Your task to perform on an android device: Open the calendar app, open the side menu, and click the "Day" option Image 0: 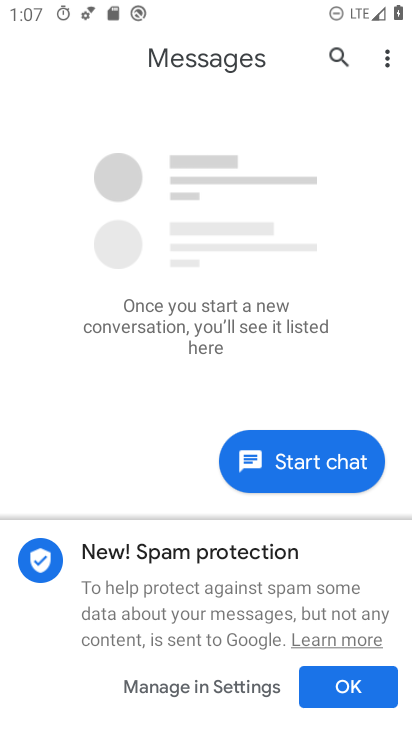
Step 0: press home button
Your task to perform on an android device: Open the calendar app, open the side menu, and click the "Day" option Image 1: 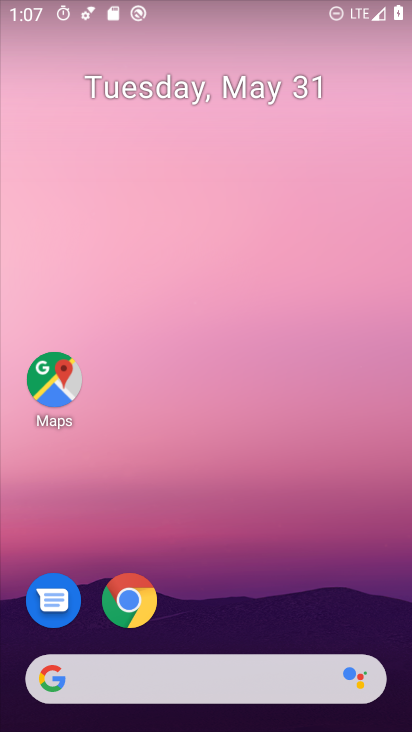
Step 1: drag from (205, 721) to (198, 662)
Your task to perform on an android device: Open the calendar app, open the side menu, and click the "Day" option Image 2: 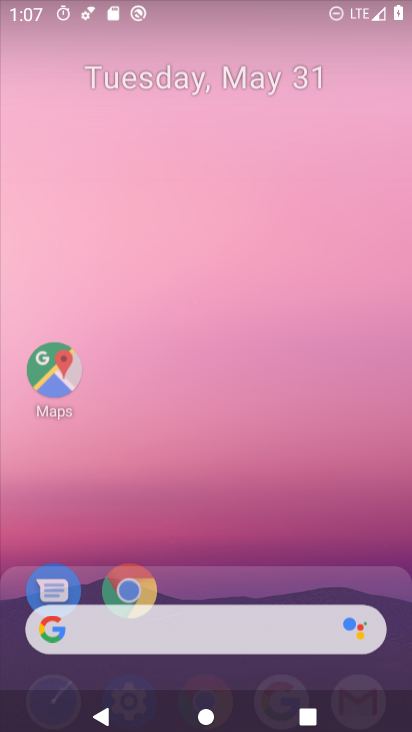
Step 2: drag from (190, 132) to (190, 44)
Your task to perform on an android device: Open the calendar app, open the side menu, and click the "Day" option Image 3: 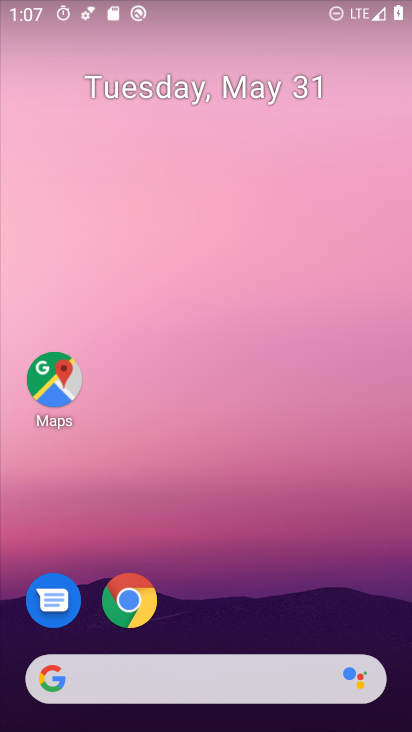
Step 3: drag from (238, 731) to (240, 13)
Your task to perform on an android device: Open the calendar app, open the side menu, and click the "Day" option Image 4: 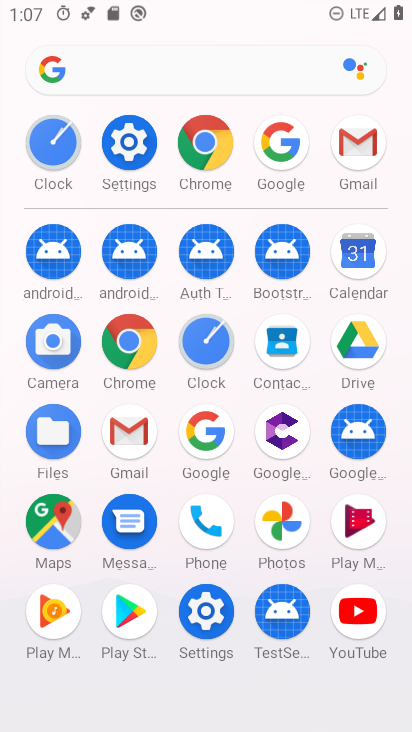
Step 4: click (358, 266)
Your task to perform on an android device: Open the calendar app, open the side menu, and click the "Day" option Image 5: 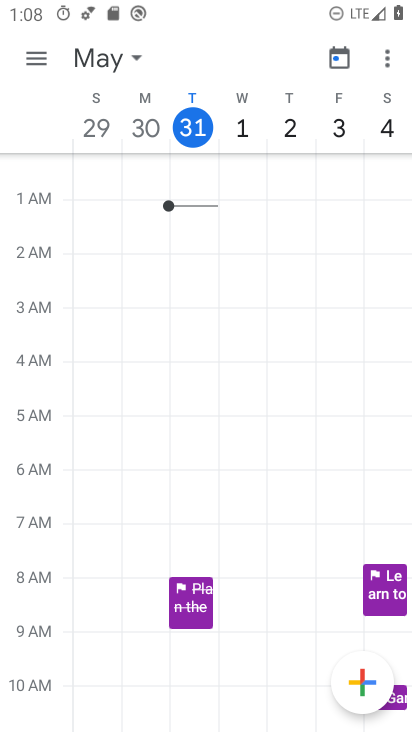
Step 5: click (33, 55)
Your task to perform on an android device: Open the calendar app, open the side menu, and click the "Day" option Image 6: 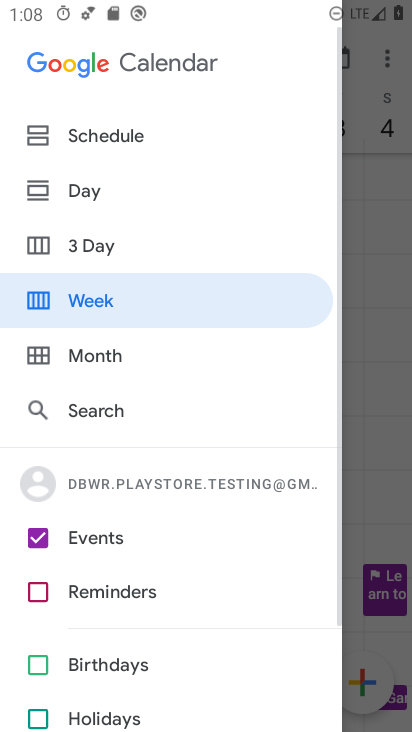
Step 6: click (101, 188)
Your task to perform on an android device: Open the calendar app, open the side menu, and click the "Day" option Image 7: 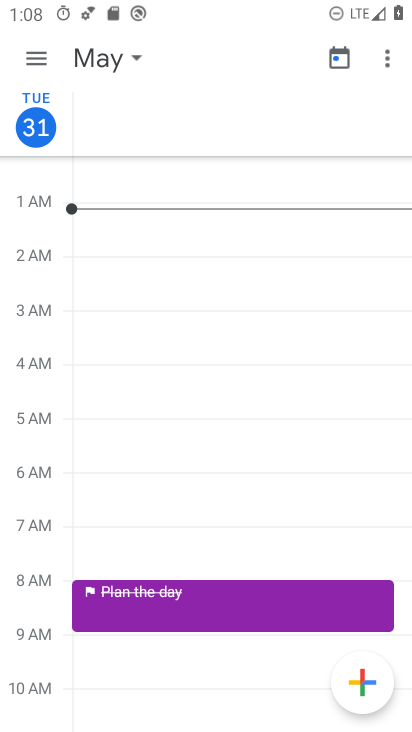
Step 7: task complete